Your task to perform on an android device: turn pop-ups off in chrome Image 0: 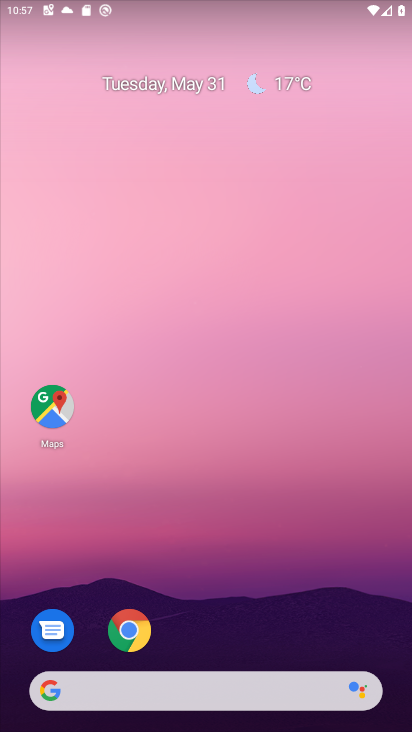
Step 0: drag from (251, 518) to (232, 79)
Your task to perform on an android device: turn pop-ups off in chrome Image 1: 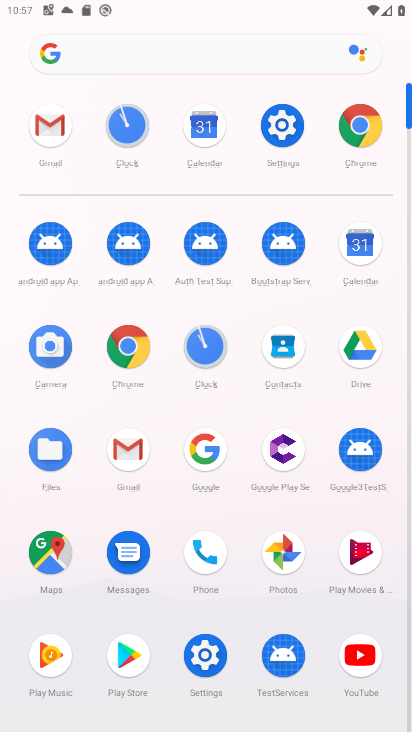
Step 1: click (119, 326)
Your task to perform on an android device: turn pop-ups off in chrome Image 2: 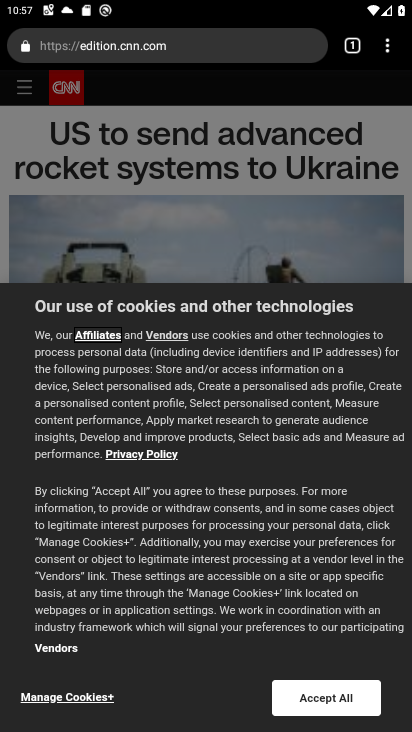
Step 2: drag from (399, 41) to (246, 508)
Your task to perform on an android device: turn pop-ups off in chrome Image 3: 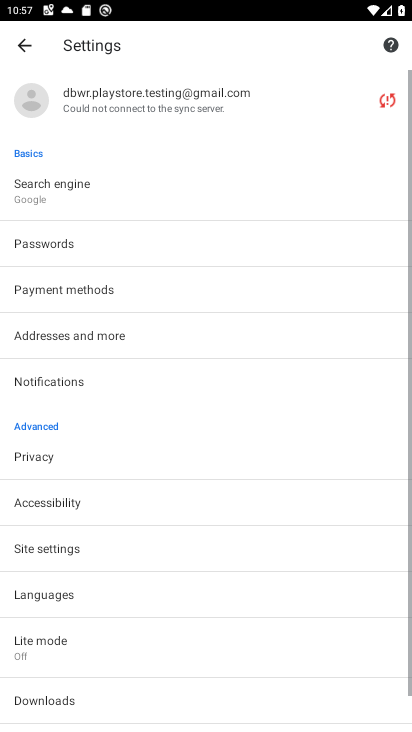
Step 3: drag from (179, 588) to (178, 215)
Your task to perform on an android device: turn pop-ups off in chrome Image 4: 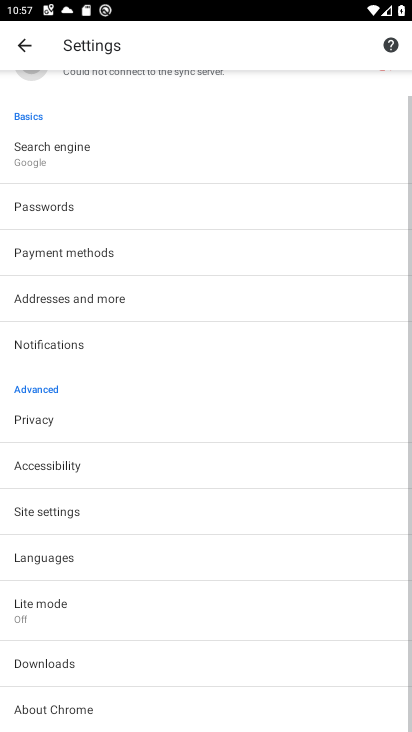
Step 4: click (42, 513)
Your task to perform on an android device: turn pop-ups off in chrome Image 5: 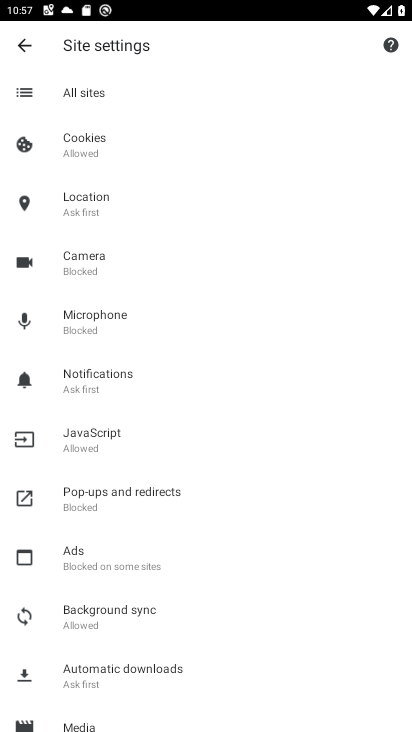
Step 5: click (116, 481)
Your task to perform on an android device: turn pop-ups off in chrome Image 6: 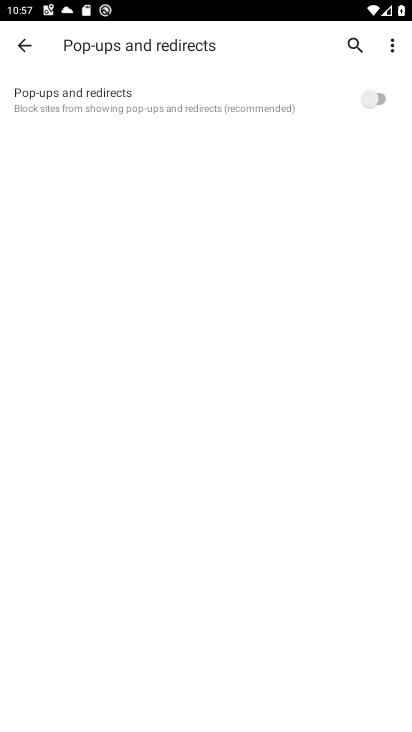
Step 6: task complete